Your task to perform on an android device: Do I have any events this weekend? Image 0: 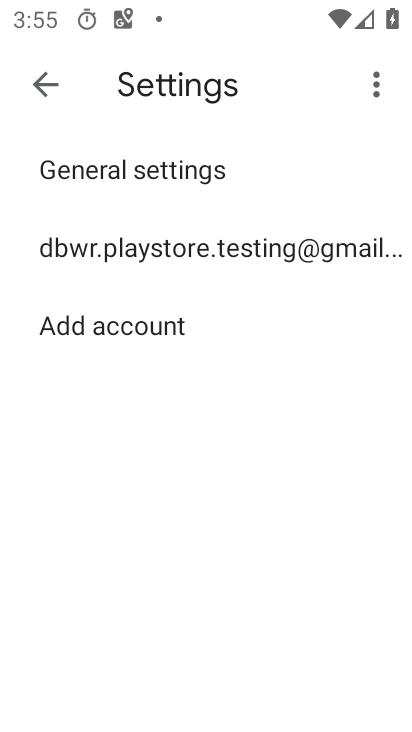
Step 0: press home button
Your task to perform on an android device: Do I have any events this weekend? Image 1: 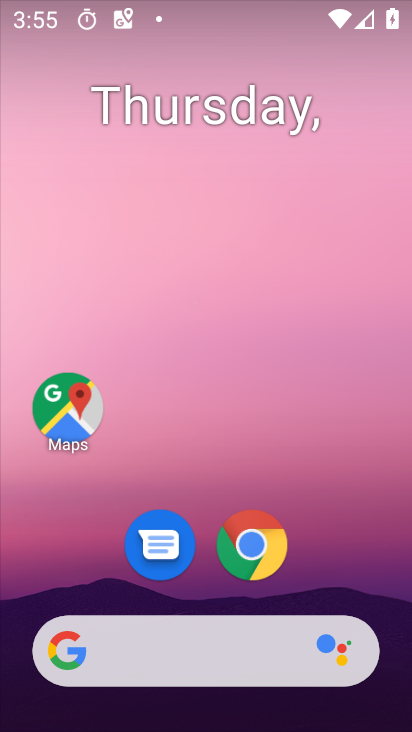
Step 1: drag from (224, 719) to (203, 246)
Your task to perform on an android device: Do I have any events this weekend? Image 2: 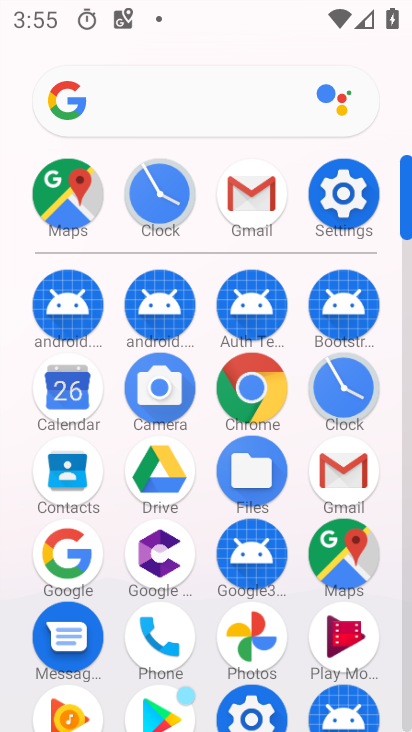
Step 2: click (70, 394)
Your task to perform on an android device: Do I have any events this weekend? Image 3: 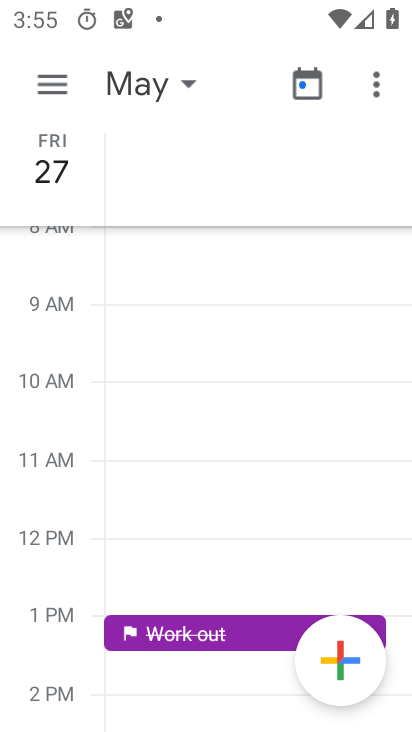
Step 3: click (52, 75)
Your task to perform on an android device: Do I have any events this weekend? Image 4: 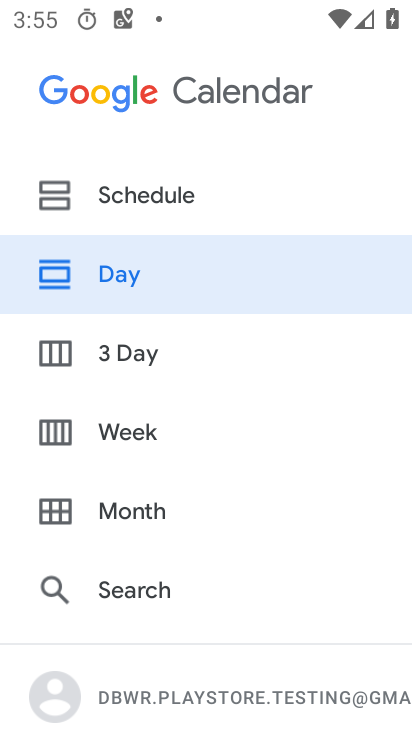
Step 4: drag from (106, 661) to (152, 194)
Your task to perform on an android device: Do I have any events this weekend? Image 5: 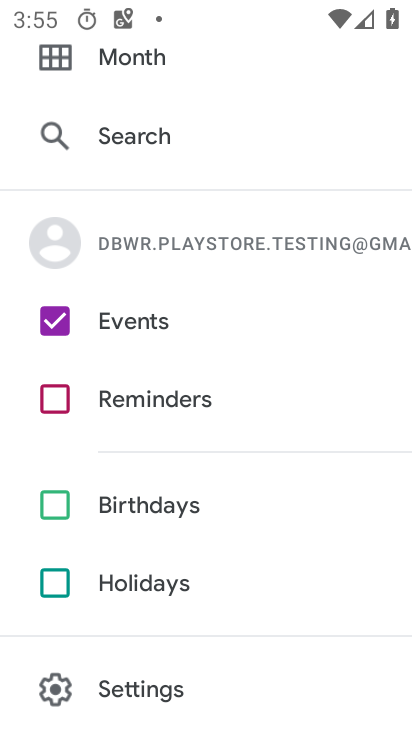
Step 5: drag from (211, 124) to (247, 567)
Your task to perform on an android device: Do I have any events this weekend? Image 6: 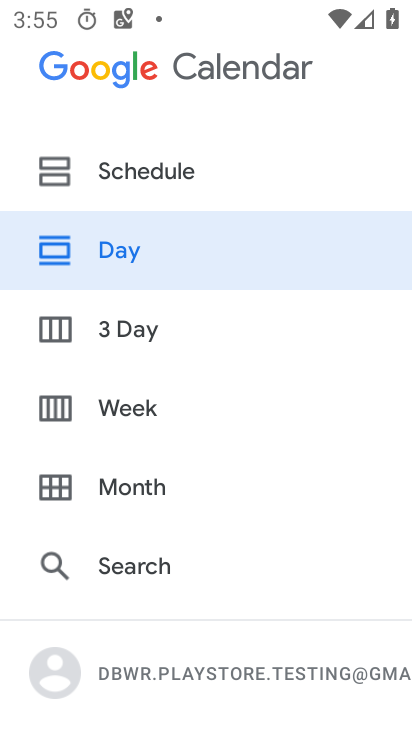
Step 6: click (126, 403)
Your task to perform on an android device: Do I have any events this weekend? Image 7: 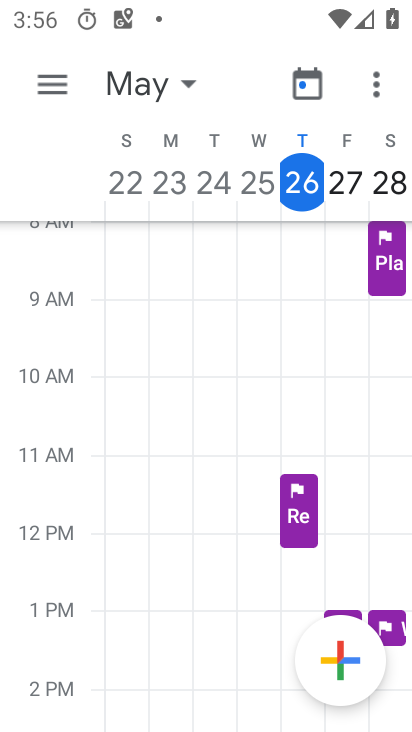
Step 7: click (383, 177)
Your task to perform on an android device: Do I have any events this weekend? Image 8: 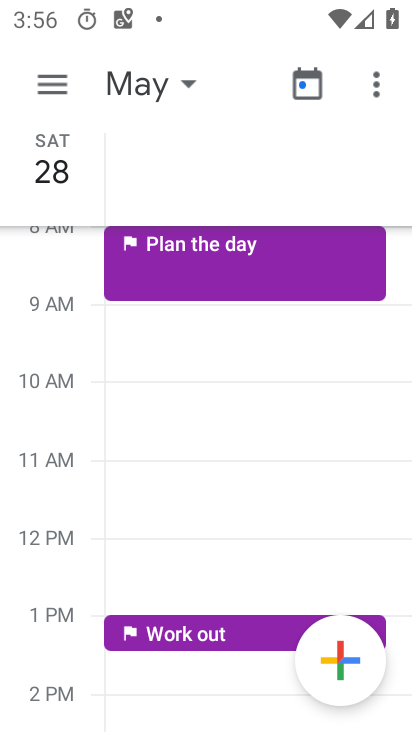
Step 8: task complete